Your task to perform on an android device: remove spam from my inbox in the gmail app Image 0: 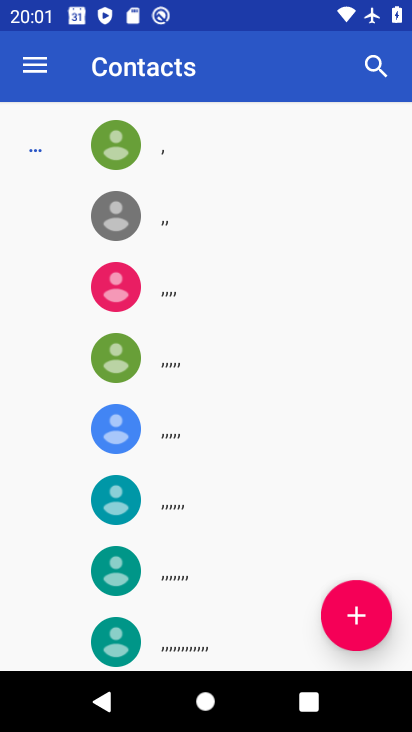
Step 0: press home button
Your task to perform on an android device: remove spam from my inbox in the gmail app Image 1: 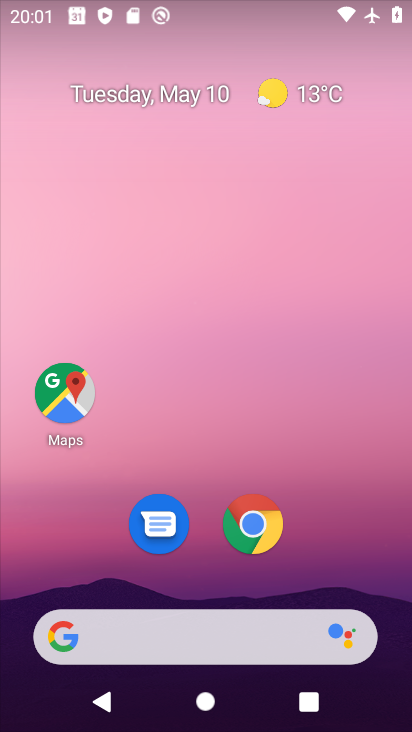
Step 1: drag from (323, 526) to (295, 31)
Your task to perform on an android device: remove spam from my inbox in the gmail app Image 2: 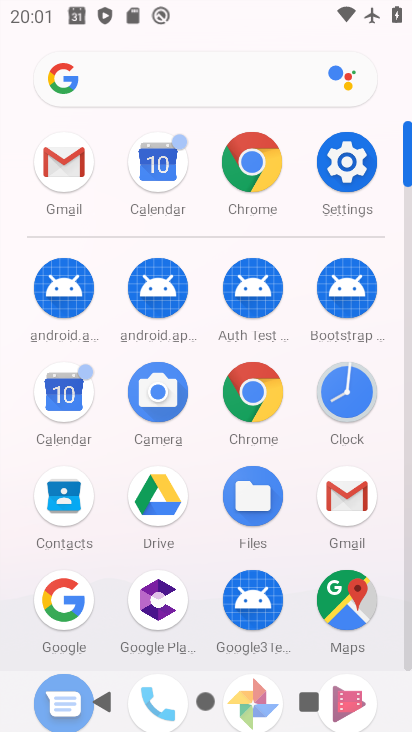
Step 2: click (346, 496)
Your task to perform on an android device: remove spam from my inbox in the gmail app Image 3: 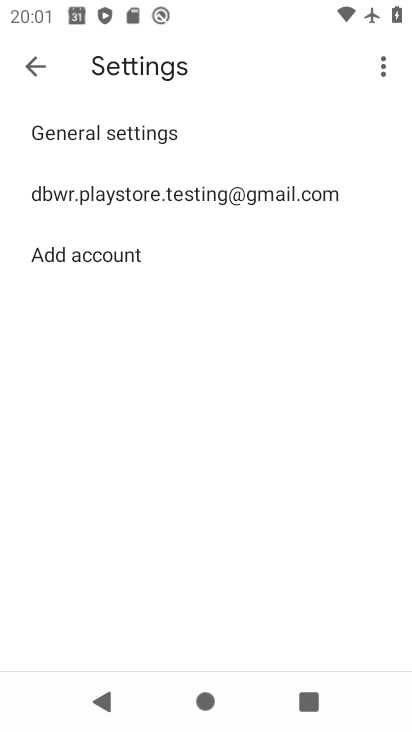
Step 3: click (39, 63)
Your task to perform on an android device: remove spam from my inbox in the gmail app Image 4: 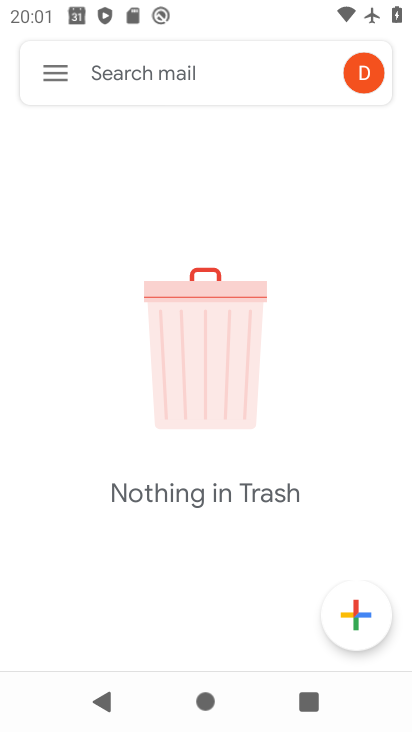
Step 4: click (53, 72)
Your task to perform on an android device: remove spam from my inbox in the gmail app Image 5: 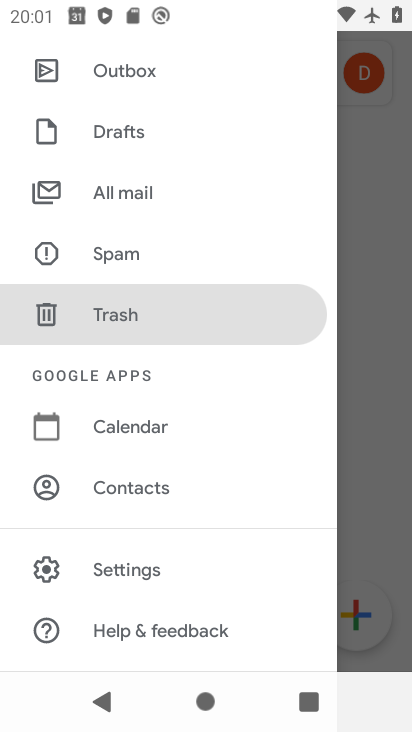
Step 5: click (138, 251)
Your task to perform on an android device: remove spam from my inbox in the gmail app Image 6: 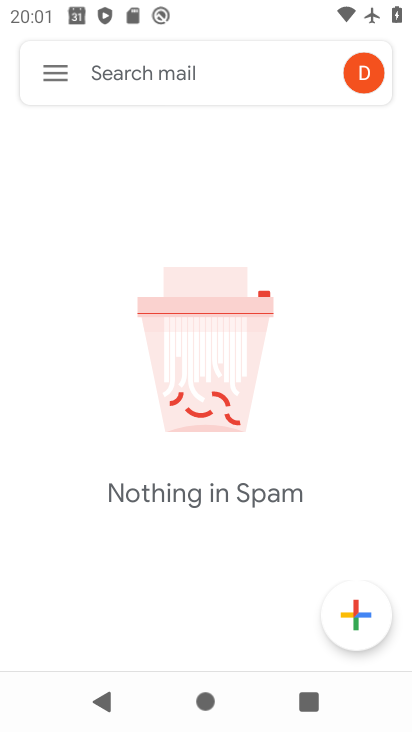
Step 6: task complete